Your task to perform on an android device: Open calendar and show me the first week of next month Image 0: 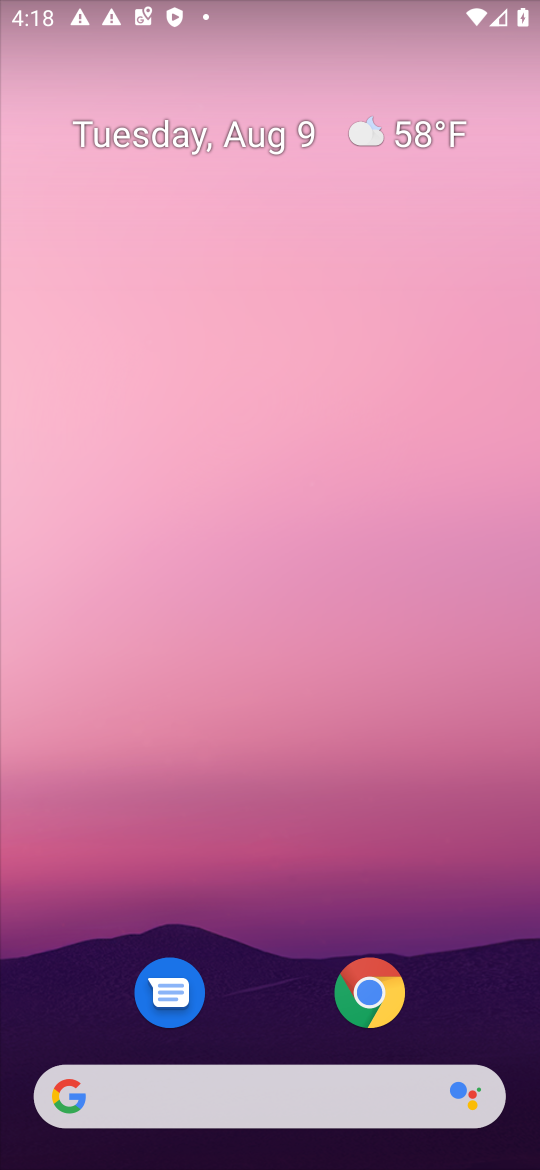
Step 0: drag from (197, 1106) to (291, 155)
Your task to perform on an android device: Open calendar and show me the first week of next month Image 1: 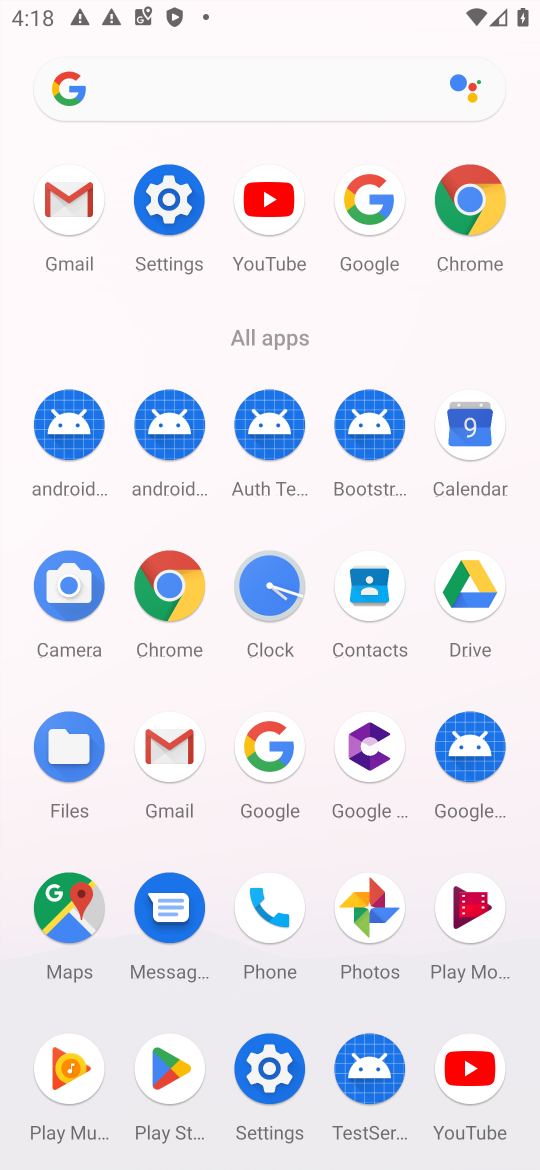
Step 1: click (474, 407)
Your task to perform on an android device: Open calendar and show me the first week of next month Image 2: 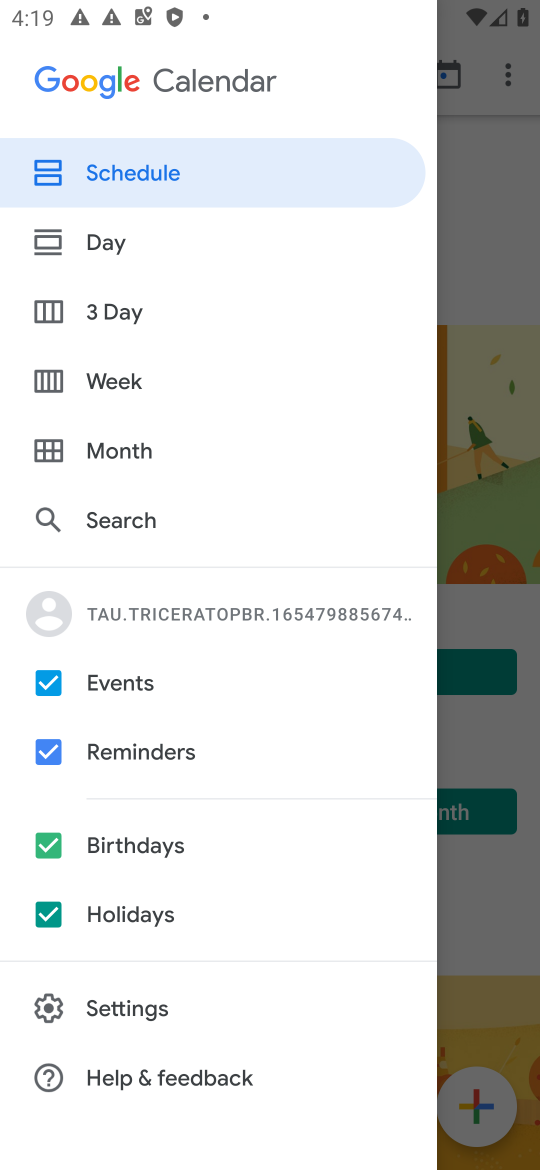
Step 2: click (463, 216)
Your task to perform on an android device: Open calendar and show me the first week of next month Image 3: 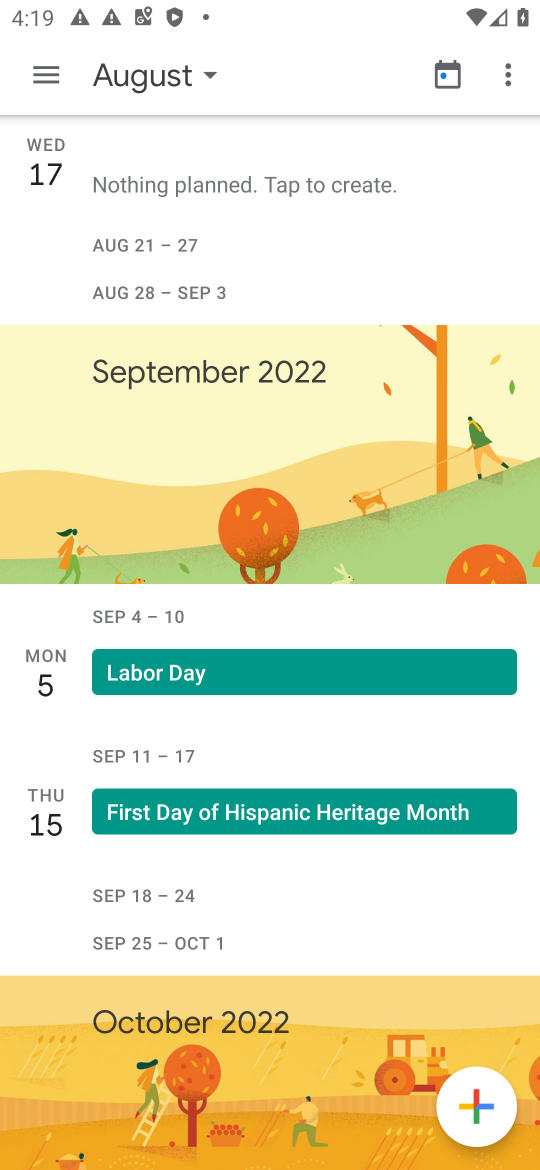
Step 3: click (209, 73)
Your task to perform on an android device: Open calendar and show me the first week of next month Image 4: 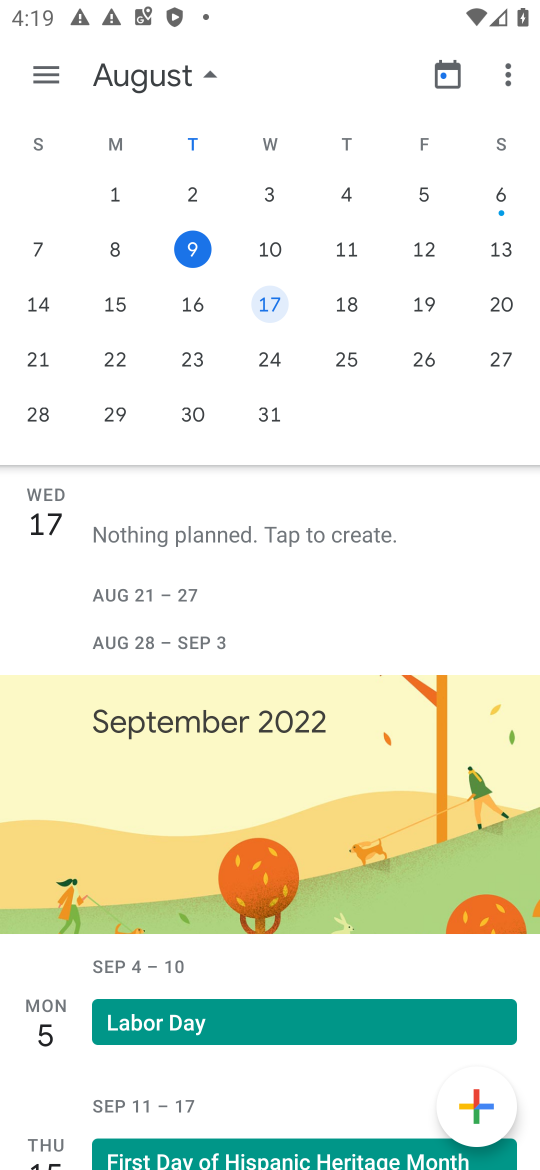
Step 4: task complete